Your task to perform on an android device: See recent photos Image 0: 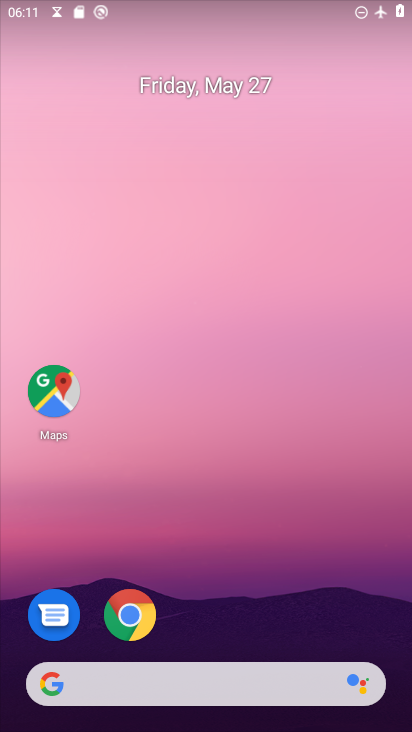
Step 0: drag from (252, 398) to (173, 3)
Your task to perform on an android device: See recent photos Image 1: 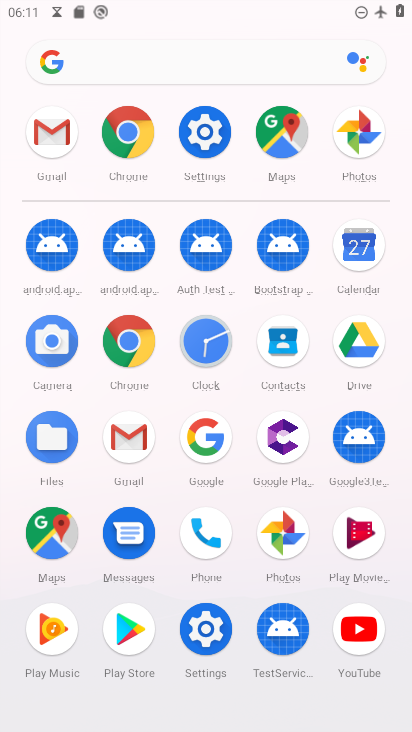
Step 1: click (280, 530)
Your task to perform on an android device: See recent photos Image 2: 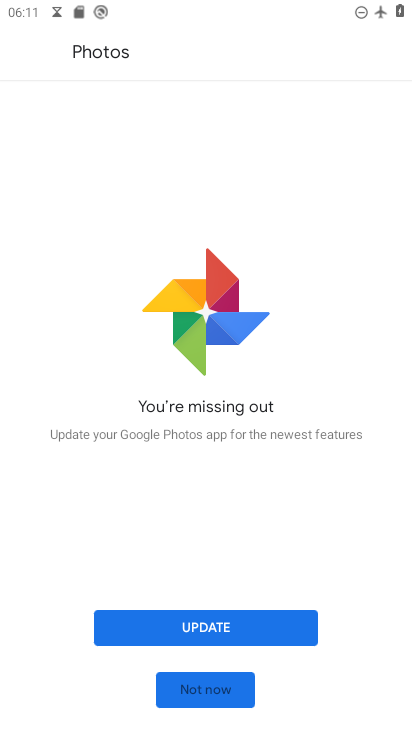
Step 2: click (245, 627)
Your task to perform on an android device: See recent photos Image 3: 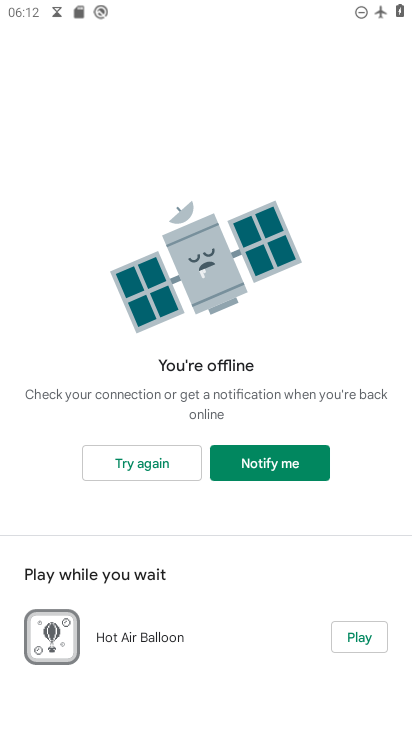
Step 3: task complete